Your task to perform on an android device: toggle notification dots Image 0: 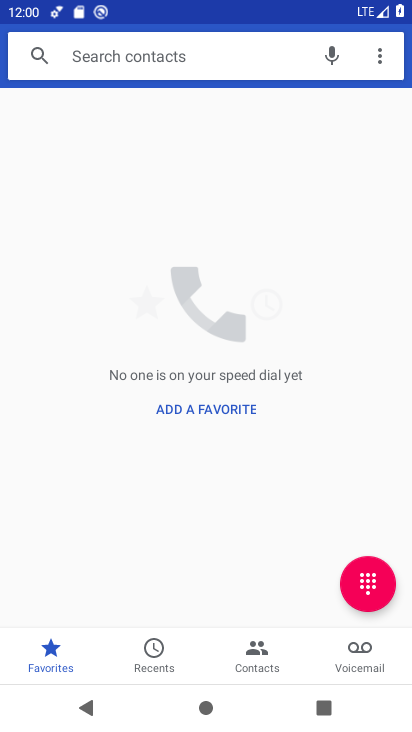
Step 0: press home button
Your task to perform on an android device: toggle notification dots Image 1: 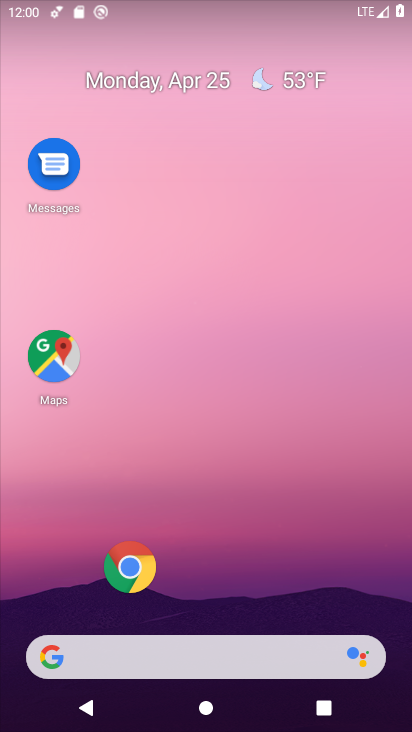
Step 1: drag from (296, 551) to (278, 243)
Your task to perform on an android device: toggle notification dots Image 2: 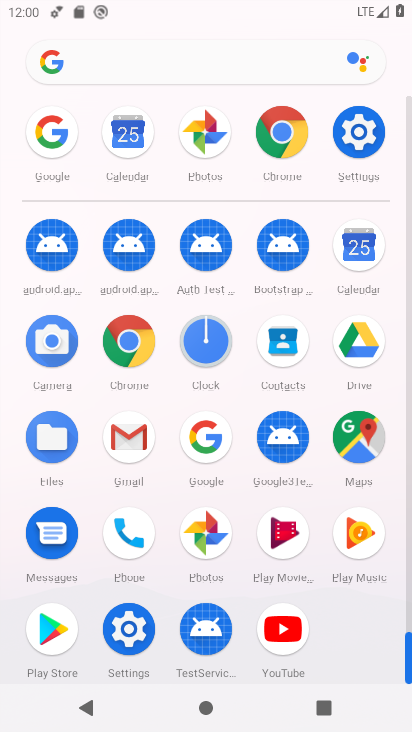
Step 2: click (358, 145)
Your task to perform on an android device: toggle notification dots Image 3: 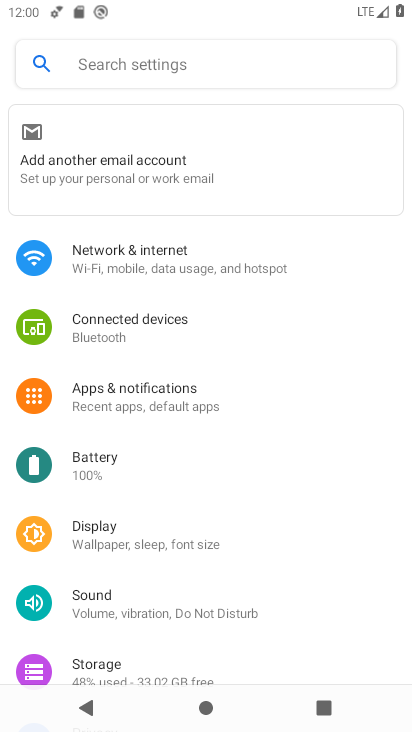
Step 3: click (194, 411)
Your task to perform on an android device: toggle notification dots Image 4: 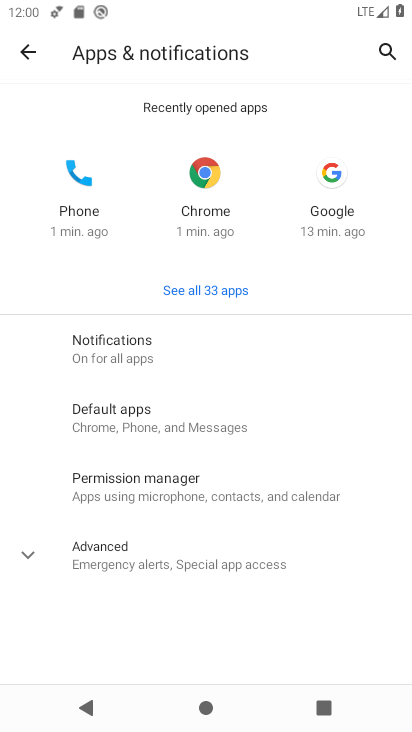
Step 4: click (205, 561)
Your task to perform on an android device: toggle notification dots Image 5: 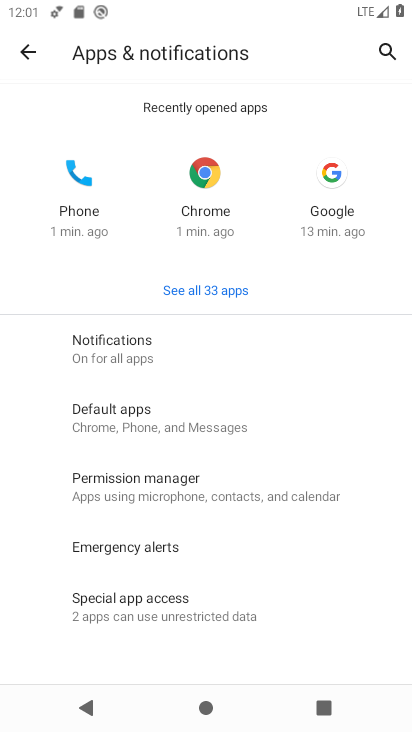
Step 5: drag from (217, 583) to (229, 337)
Your task to perform on an android device: toggle notification dots Image 6: 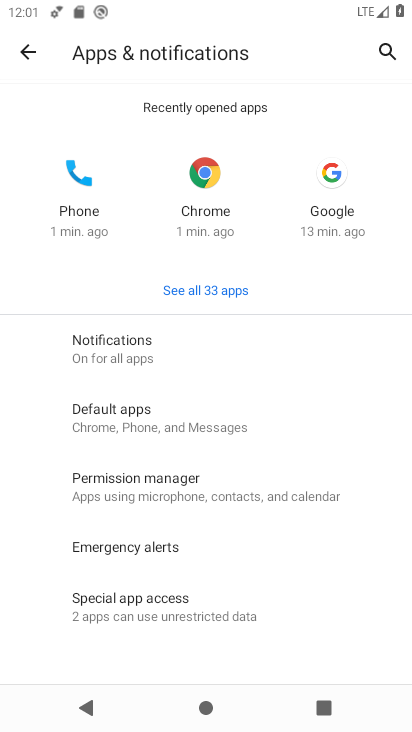
Step 6: click (249, 358)
Your task to perform on an android device: toggle notification dots Image 7: 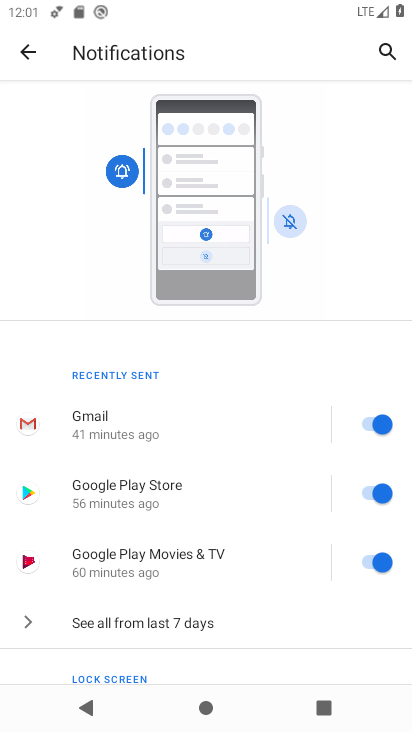
Step 7: drag from (211, 565) to (276, 203)
Your task to perform on an android device: toggle notification dots Image 8: 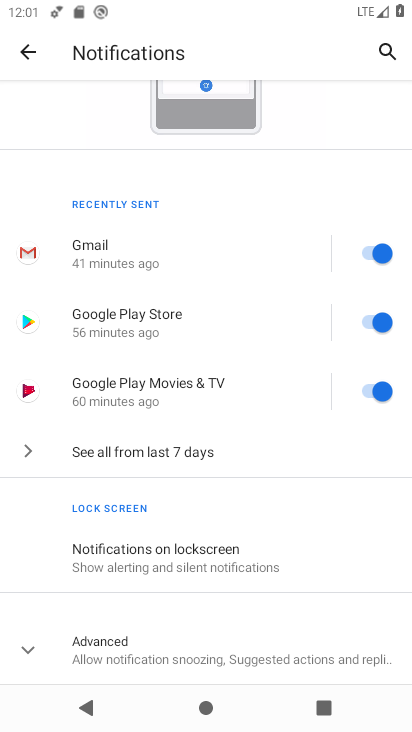
Step 8: click (201, 659)
Your task to perform on an android device: toggle notification dots Image 9: 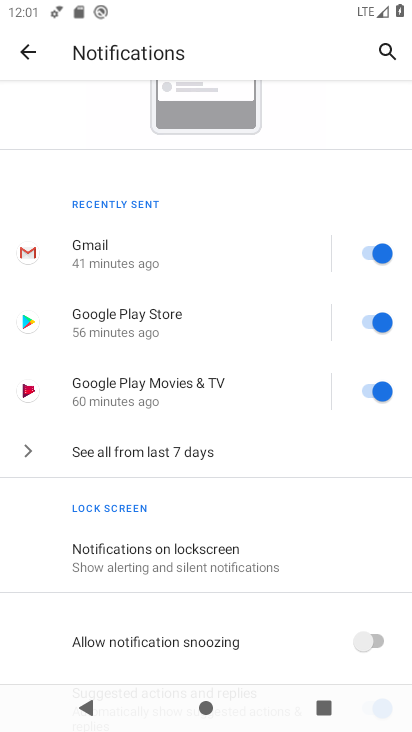
Step 9: drag from (232, 565) to (278, 223)
Your task to perform on an android device: toggle notification dots Image 10: 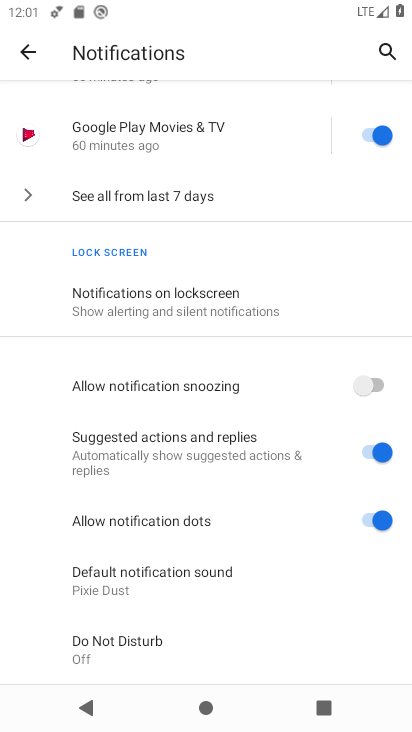
Step 10: click (369, 525)
Your task to perform on an android device: toggle notification dots Image 11: 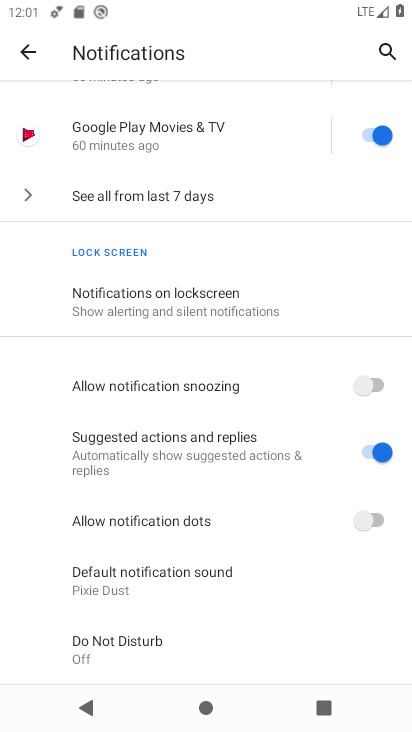
Step 11: task complete